Your task to perform on an android device: set an alarm Image 0: 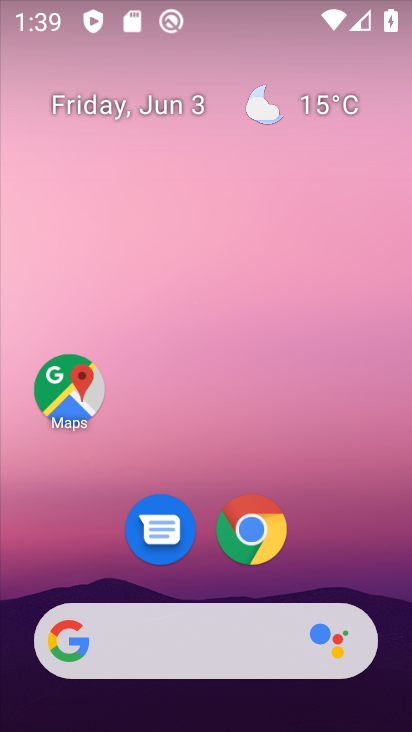
Step 0: drag from (368, 570) to (369, 392)
Your task to perform on an android device: set an alarm Image 1: 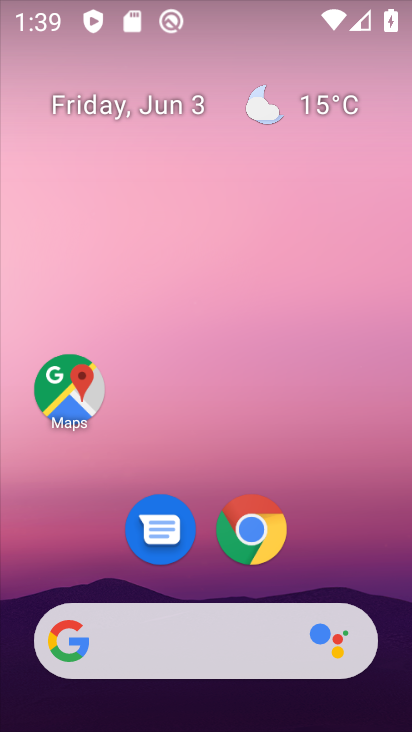
Step 1: drag from (259, 368) to (254, 56)
Your task to perform on an android device: set an alarm Image 2: 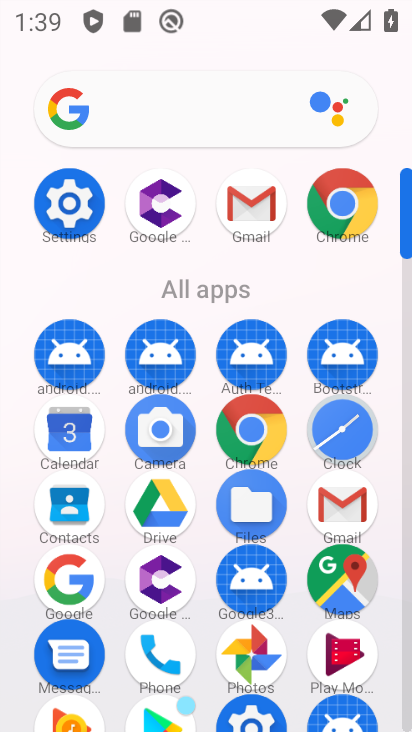
Step 2: click (340, 444)
Your task to perform on an android device: set an alarm Image 3: 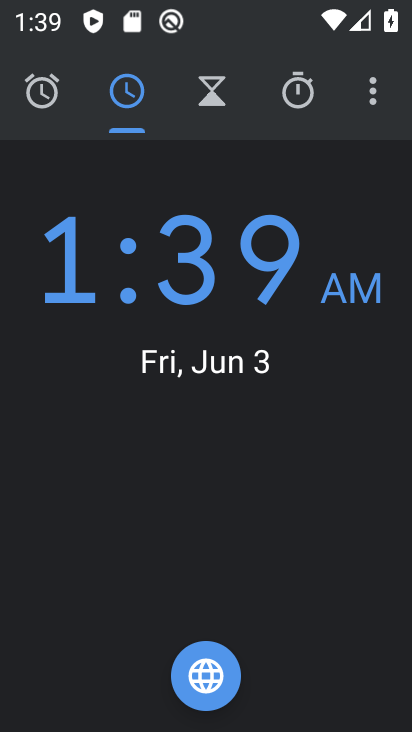
Step 3: click (50, 103)
Your task to perform on an android device: set an alarm Image 4: 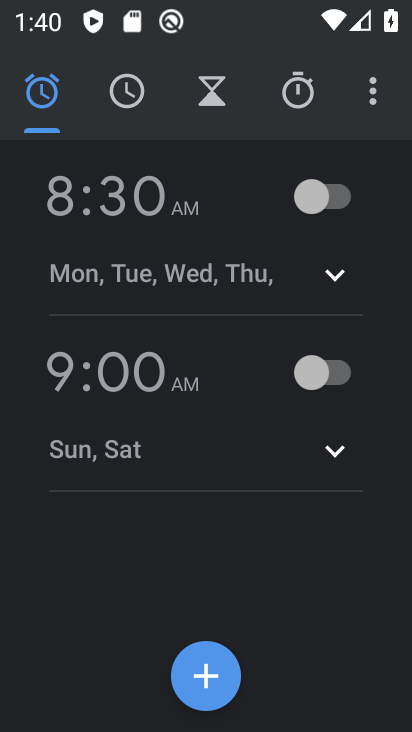
Step 4: click (208, 691)
Your task to perform on an android device: set an alarm Image 5: 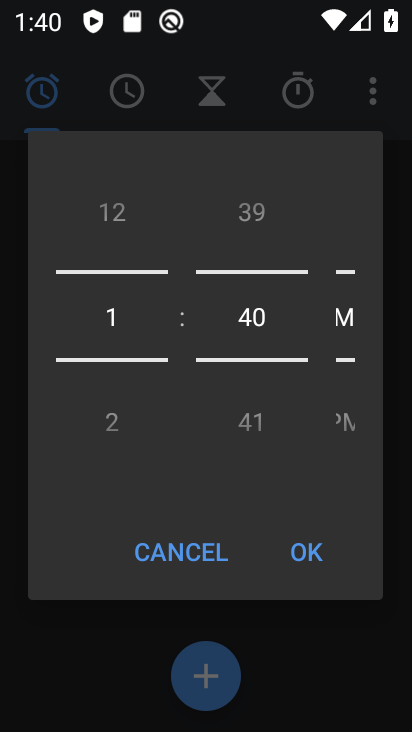
Step 5: click (302, 562)
Your task to perform on an android device: set an alarm Image 6: 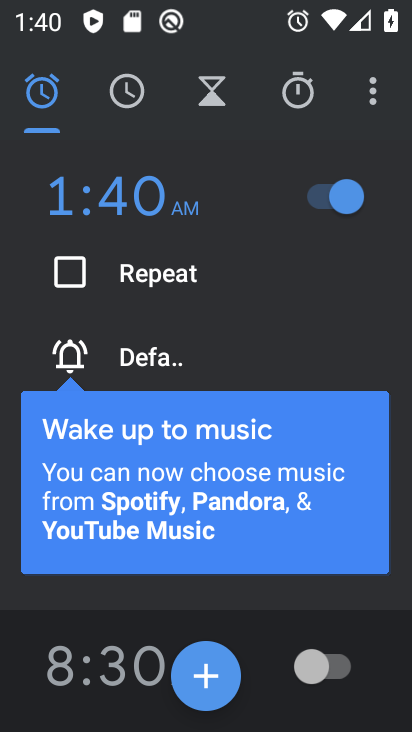
Step 6: task complete